Your task to perform on an android device: Open the Play Movies app and select the watchlist tab. Image 0: 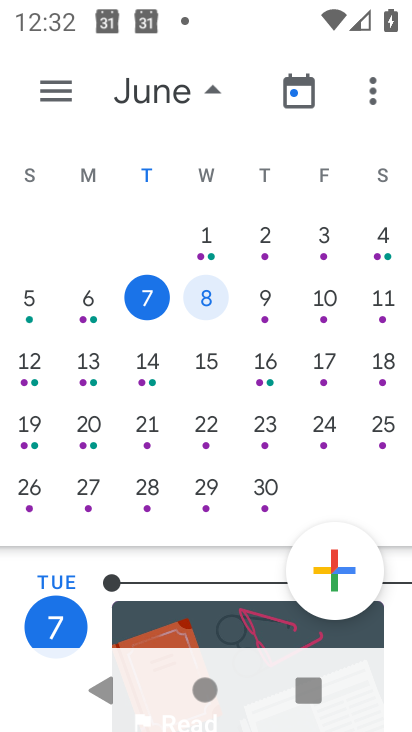
Step 0: press home button
Your task to perform on an android device: Open the Play Movies app and select the watchlist tab. Image 1: 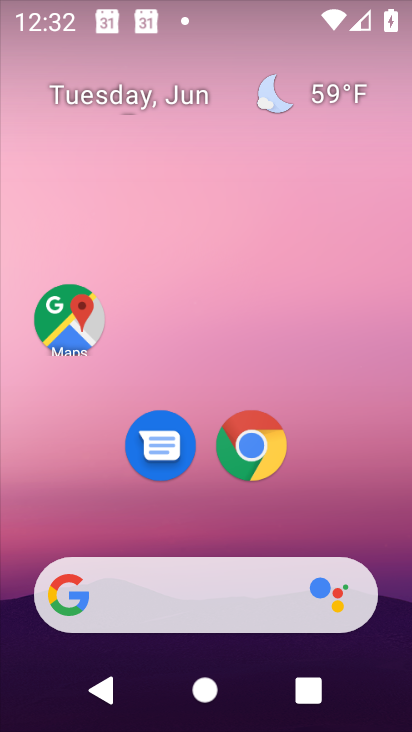
Step 1: click (405, 227)
Your task to perform on an android device: Open the Play Movies app and select the watchlist tab. Image 2: 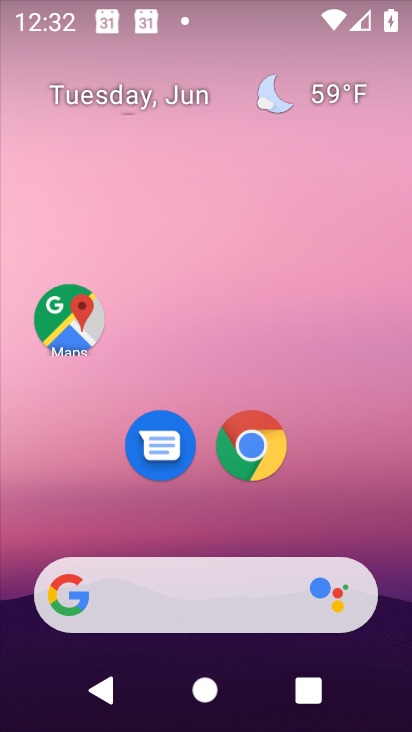
Step 2: drag from (219, 521) to (296, 199)
Your task to perform on an android device: Open the Play Movies app and select the watchlist tab. Image 3: 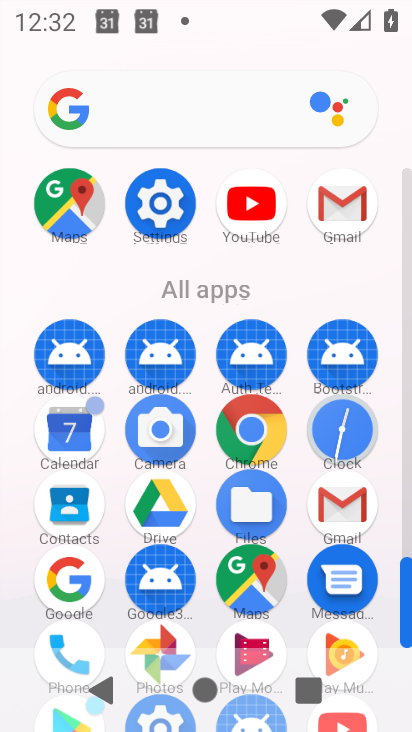
Step 3: drag from (298, 610) to (364, 105)
Your task to perform on an android device: Open the Play Movies app and select the watchlist tab. Image 4: 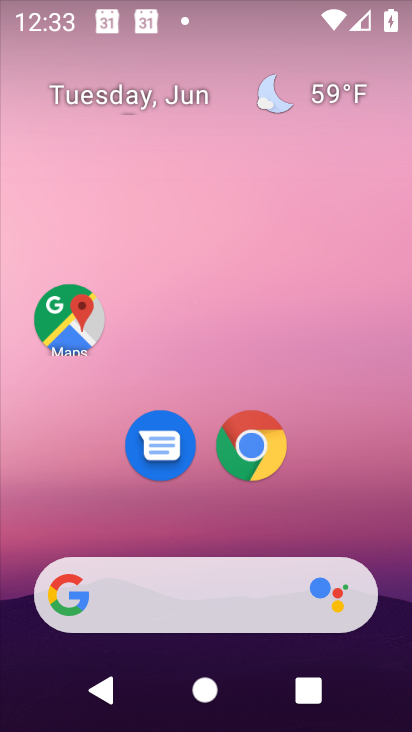
Step 4: drag from (207, 541) to (228, 36)
Your task to perform on an android device: Open the Play Movies app and select the watchlist tab. Image 5: 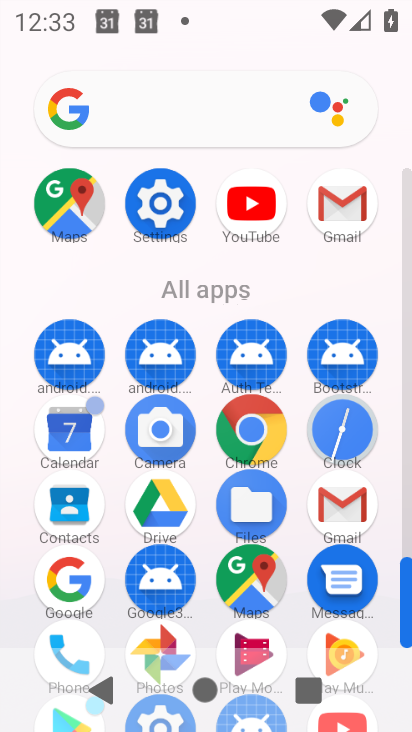
Step 5: drag from (204, 577) to (402, 358)
Your task to perform on an android device: Open the Play Movies app and select the watchlist tab. Image 6: 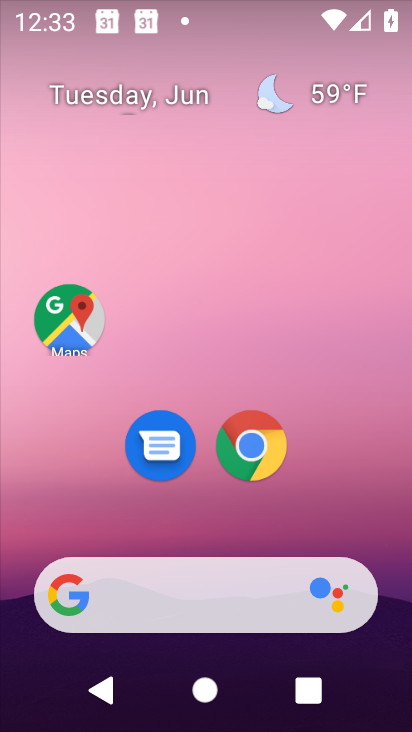
Step 6: drag from (213, 536) to (249, 213)
Your task to perform on an android device: Open the Play Movies app and select the watchlist tab. Image 7: 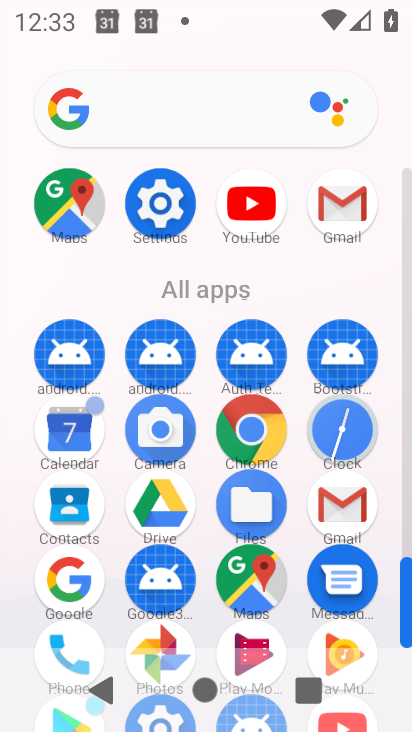
Step 7: drag from (203, 525) to (276, 7)
Your task to perform on an android device: Open the Play Movies app and select the watchlist tab. Image 8: 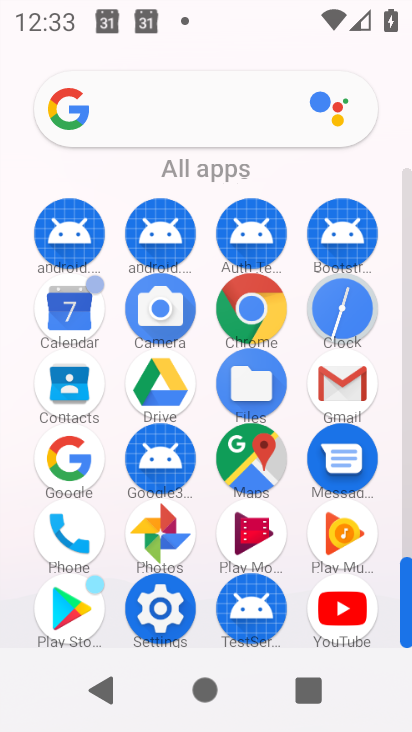
Step 8: click (253, 544)
Your task to perform on an android device: Open the Play Movies app and select the watchlist tab. Image 9: 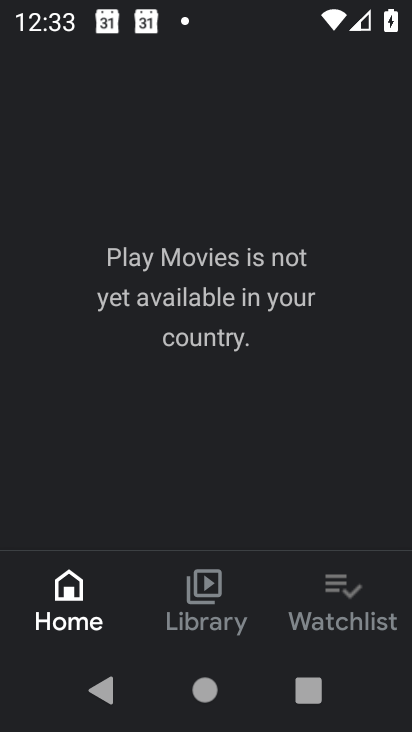
Step 9: click (363, 621)
Your task to perform on an android device: Open the Play Movies app and select the watchlist tab. Image 10: 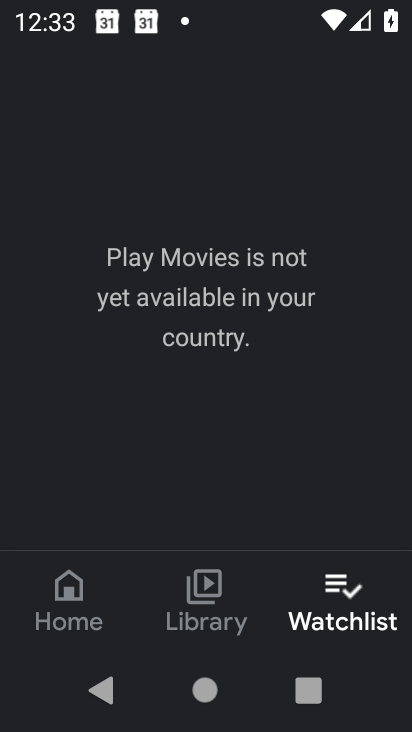
Step 10: task complete